Your task to perform on an android device: What's the weather today? Image 0: 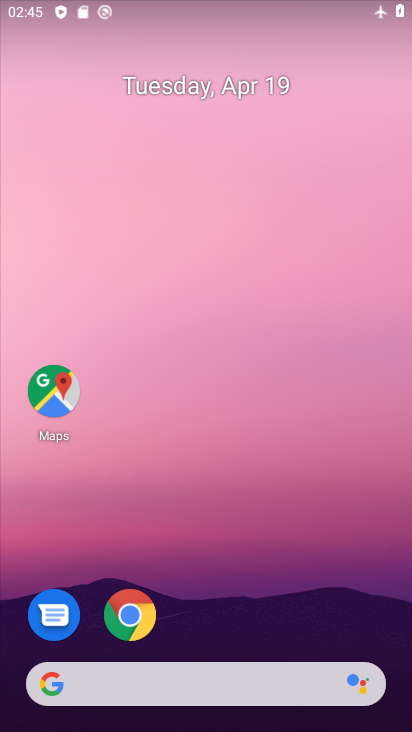
Step 0: drag from (267, 536) to (290, 205)
Your task to perform on an android device: What's the weather today? Image 1: 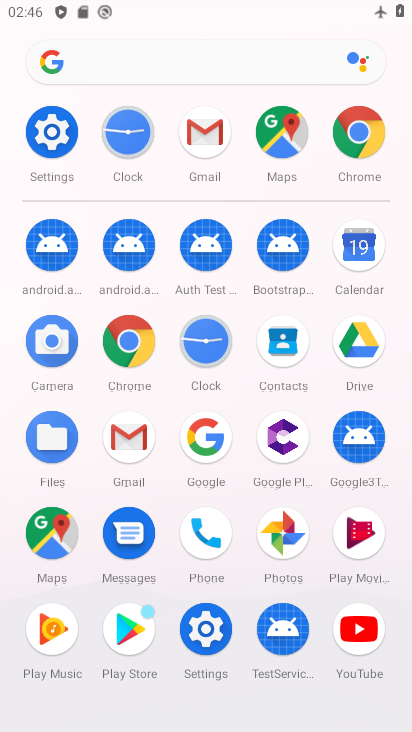
Step 1: click (133, 336)
Your task to perform on an android device: What's the weather today? Image 2: 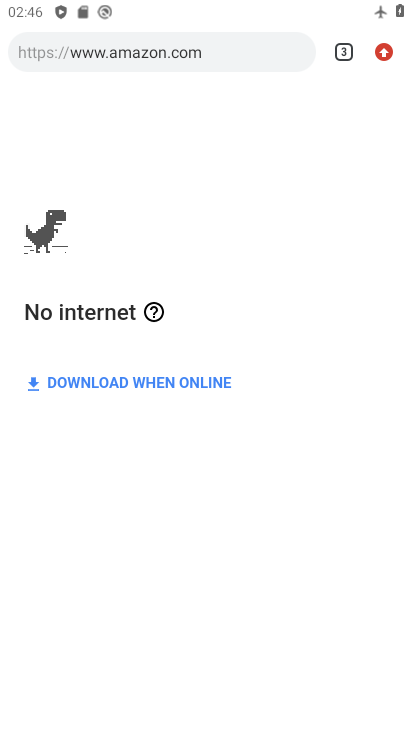
Step 2: click (262, 55)
Your task to perform on an android device: What's the weather today? Image 3: 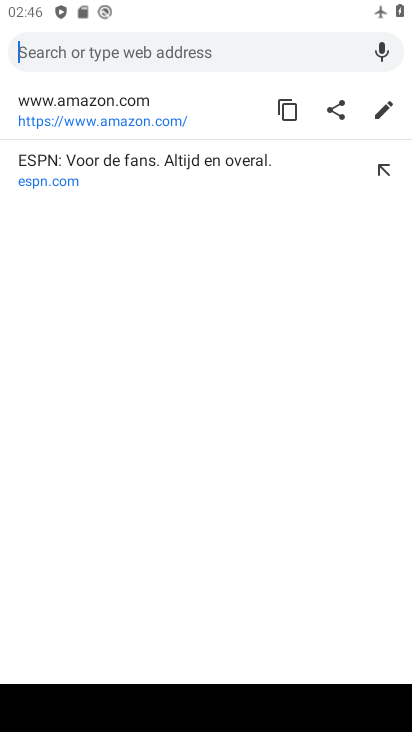
Step 3: click (324, 59)
Your task to perform on an android device: What's the weather today? Image 4: 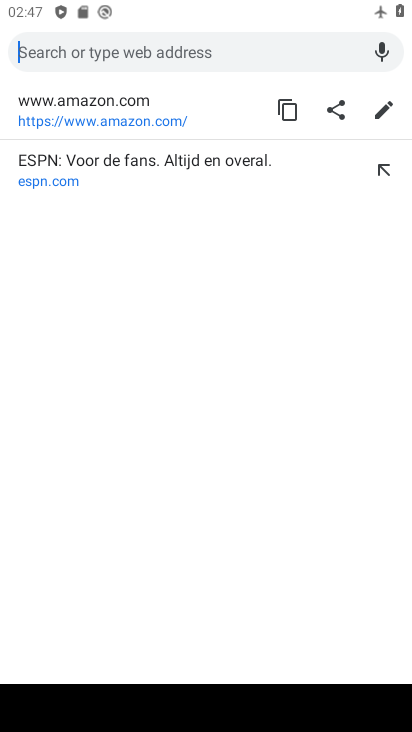
Step 4: type "What's the weather today?"
Your task to perform on an android device: What's the weather today? Image 5: 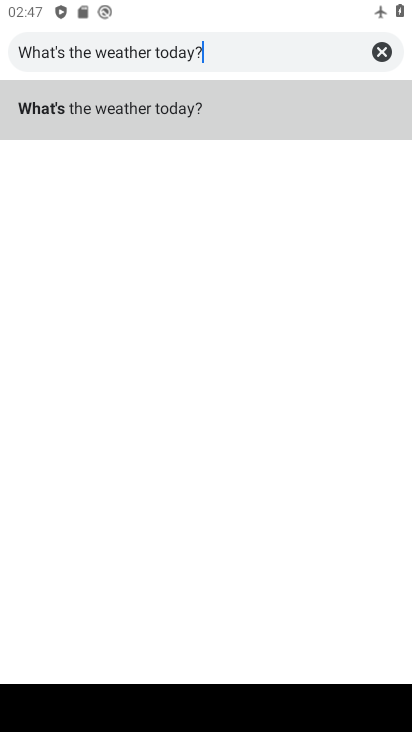
Step 5: click (160, 99)
Your task to perform on an android device: What's the weather today? Image 6: 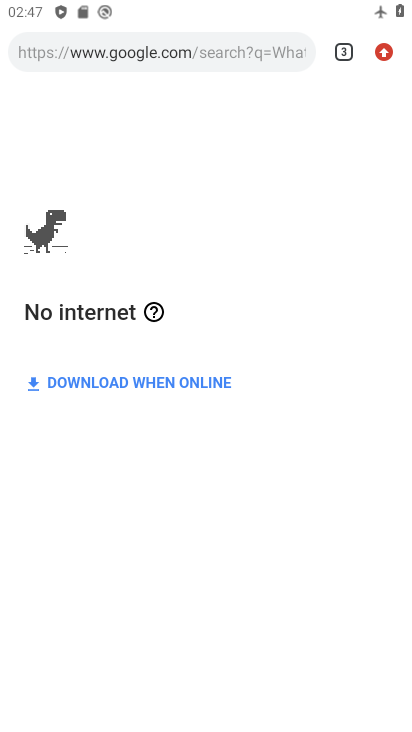
Step 6: task complete